Your task to perform on an android device: Show me the alarms in the clock app Image 0: 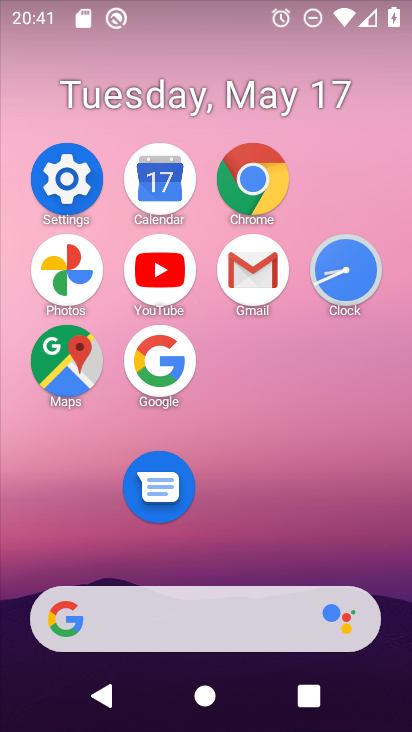
Step 0: click (321, 288)
Your task to perform on an android device: Show me the alarms in the clock app Image 1: 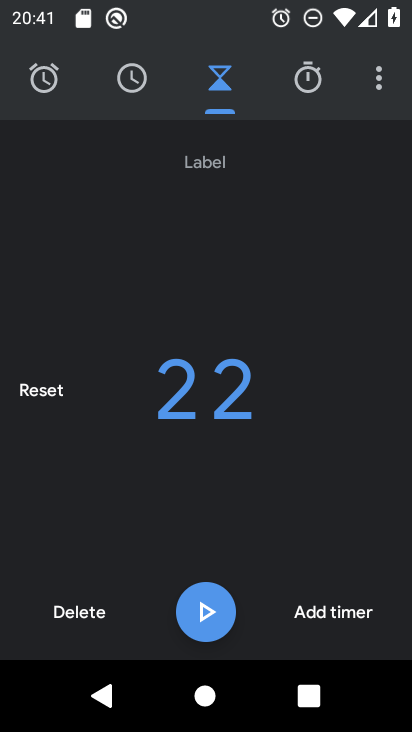
Step 1: click (36, 84)
Your task to perform on an android device: Show me the alarms in the clock app Image 2: 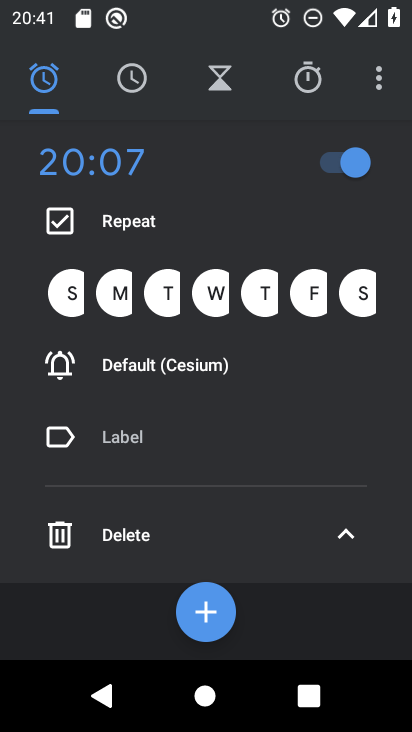
Step 2: task complete